Your task to perform on an android device: Open the phone app and click the voicemail tab. Image 0: 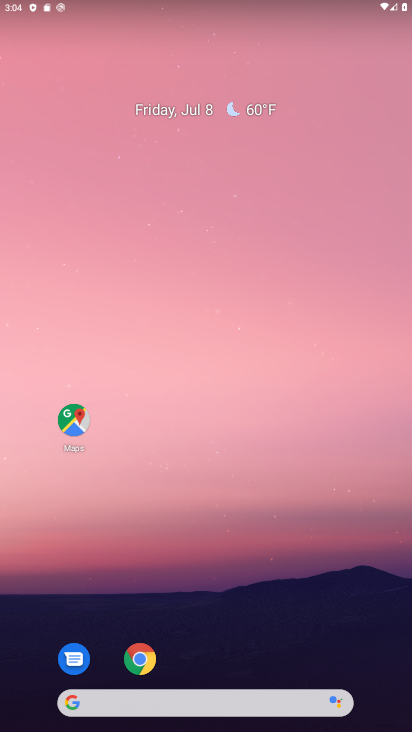
Step 0: drag from (217, 571) to (224, 66)
Your task to perform on an android device: Open the phone app and click the voicemail tab. Image 1: 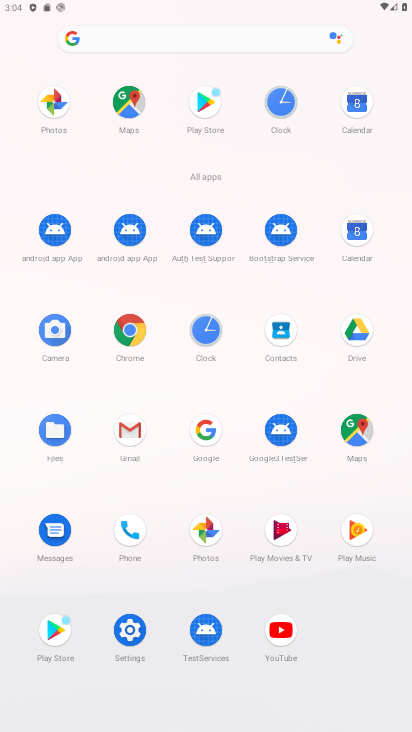
Step 1: click (132, 527)
Your task to perform on an android device: Open the phone app and click the voicemail tab. Image 2: 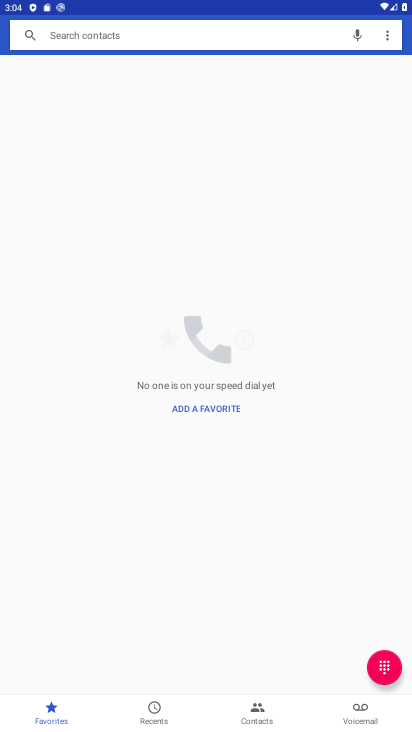
Step 2: click (364, 712)
Your task to perform on an android device: Open the phone app and click the voicemail tab. Image 3: 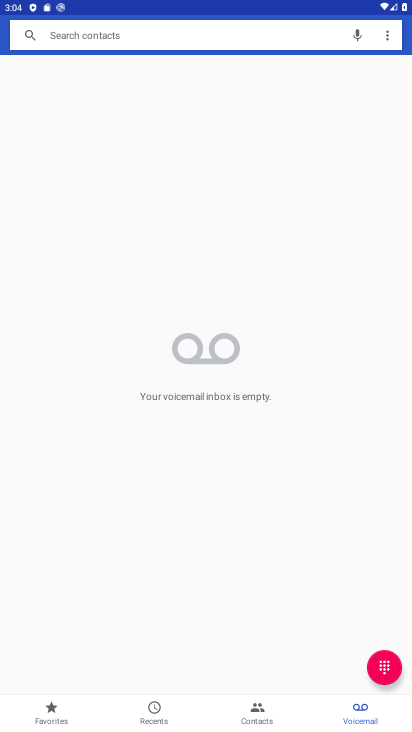
Step 3: task complete